Your task to perform on an android device: open the mobile data screen to see how much data has been used Image 0: 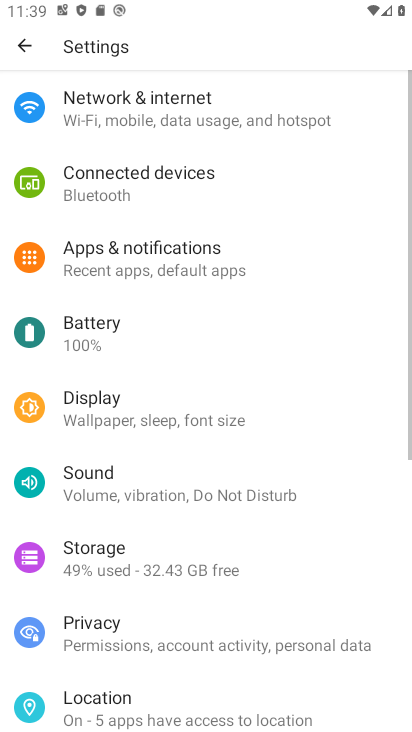
Step 0: press home button
Your task to perform on an android device: open the mobile data screen to see how much data has been used Image 1: 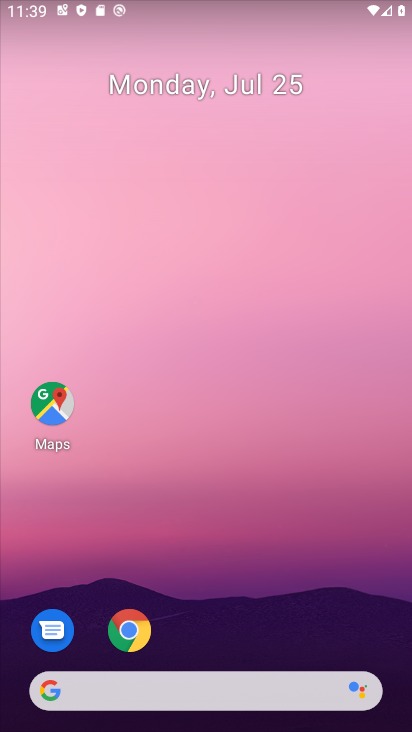
Step 1: drag from (330, 610) to (335, 134)
Your task to perform on an android device: open the mobile data screen to see how much data has been used Image 2: 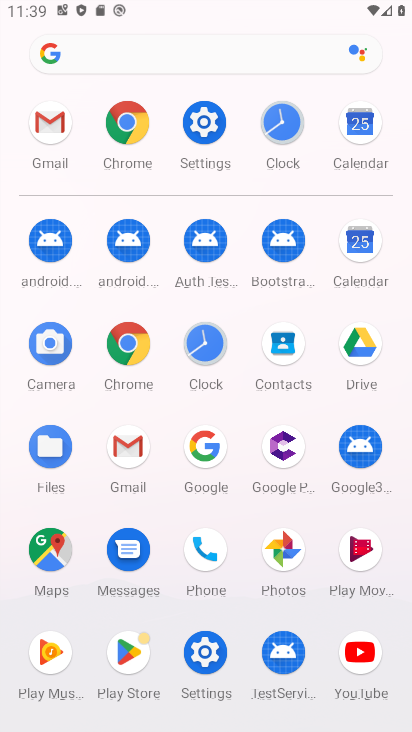
Step 2: click (198, 128)
Your task to perform on an android device: open the mobile data screen to see how much data has been used Image 3: 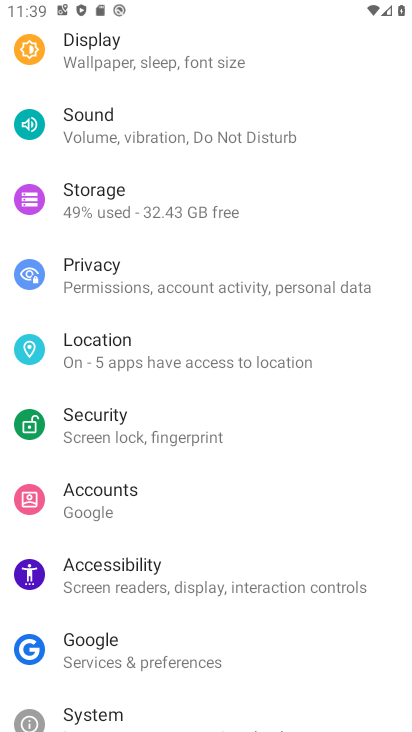
Step 3: drag from (337, 244) to (335, 325)
Your task to perform on an android device: open the mobile data screen to see how much data has been used Image 4: 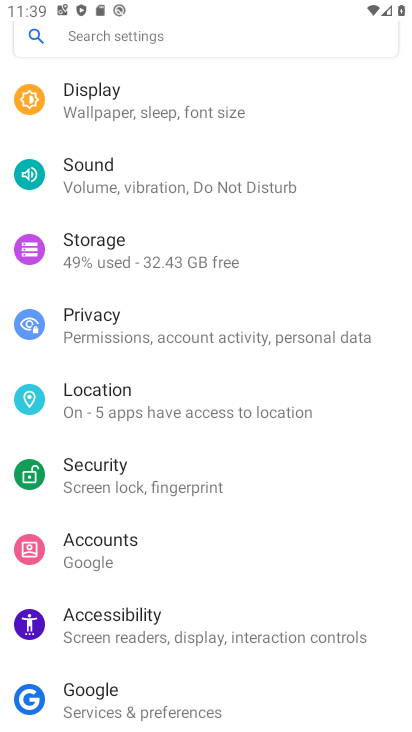
Step 4: drag from (348, 236) to (354, 327)
Your task to perform on an android device: open the mobile data screen to see how much data has been used Image 5: 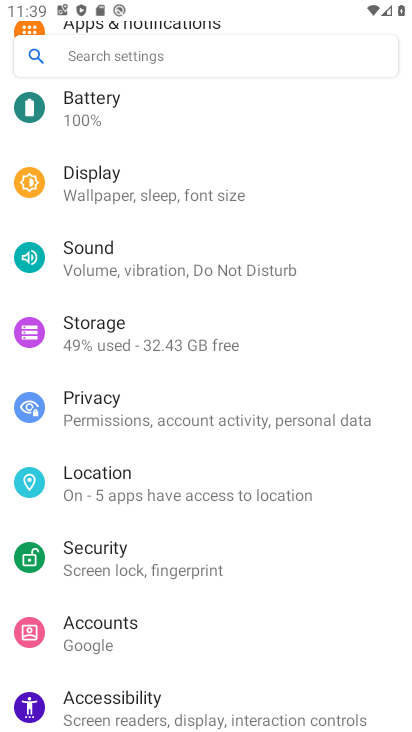
Step 5: drag from (364, 221) to (367, 305)
Your task to perform on an android device: open the mobile data screen to see how much data has been used Image 6: 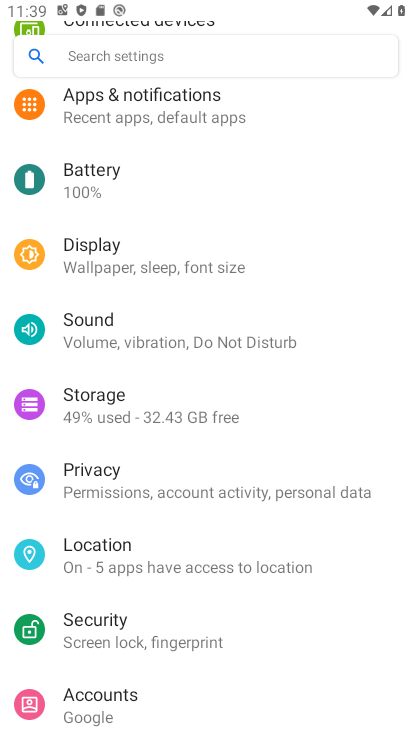
Step 6: drag from (367, 207) to (368, 316)
Your task to perform on an android device: open the mobile data screen to see how much data has been used Image 7: 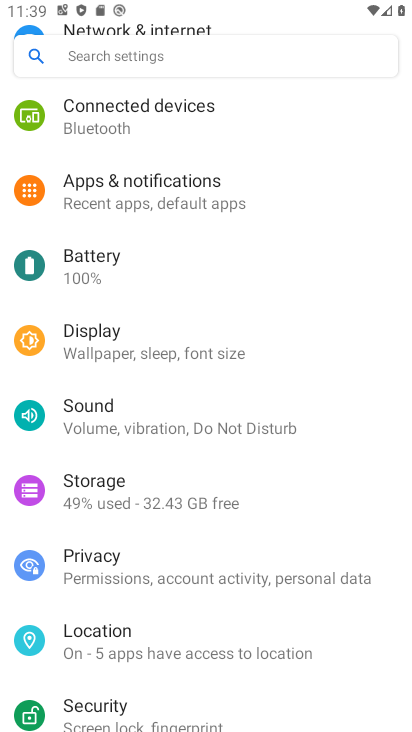
Step 7: drag from (352, 185) to (352, 323)
Your task to perform on an android device: open the mobile data screen to see how much data has been used Image 8: 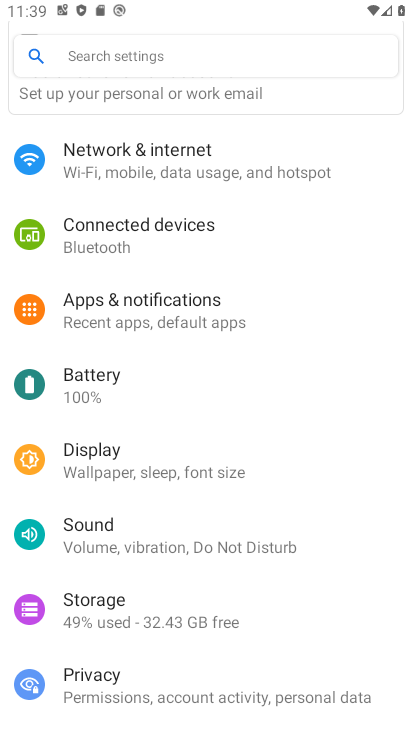
Step 8: drag from (365, 169) to (366, 327)
Your task to perform on an android device: open the mobile data screen to see how much data has been used Image 9: 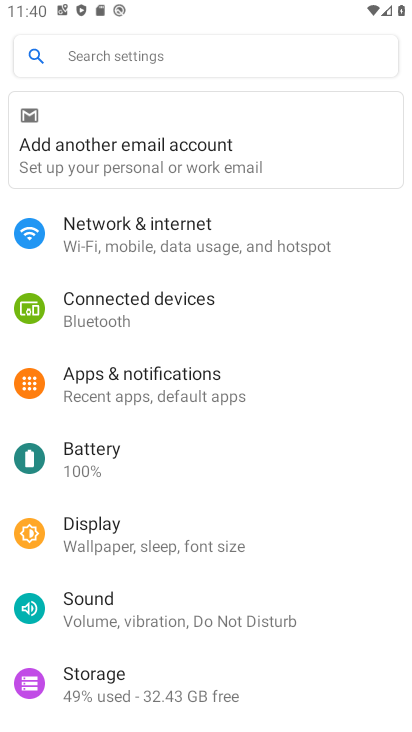
Step 9: click (202, 227)
Your task to perform on an android device: open the mobile data screen to see how much data has been used Image 10: 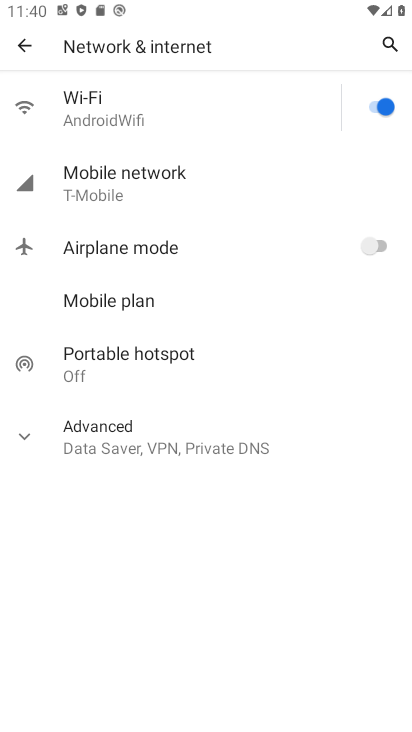
Step 10: click (171, 194)
Your task to perform on an android device: open the mobile data screen to see how much data has been used Image 11: 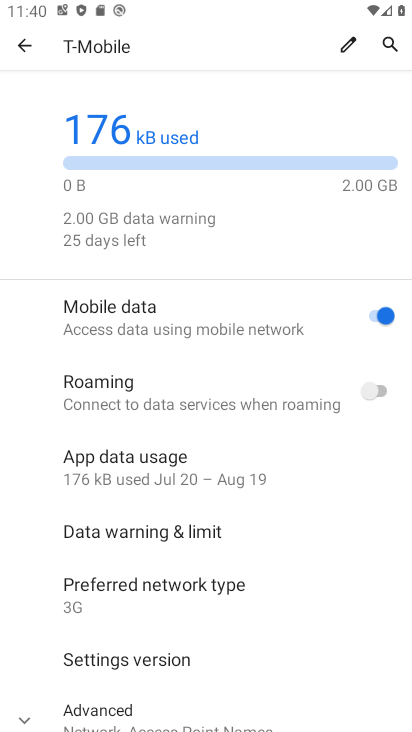
Step 11: click (199, 466)
Your task to perform on an android device: open the mobile data screen to see how much data has been used Image 12: 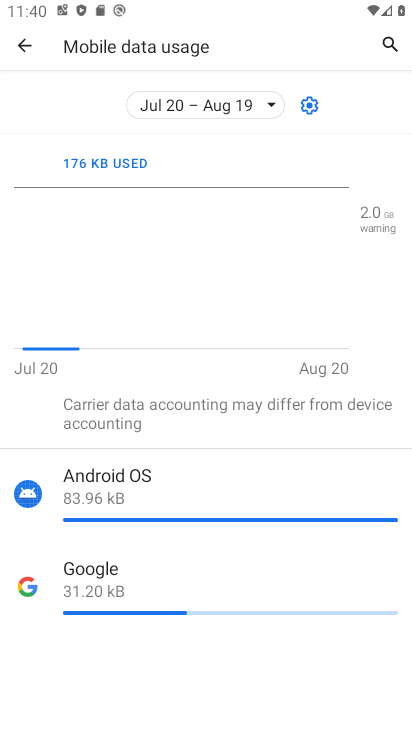
Step 12: task complete